Your task to perform on an android device: check the backup settings in the google photos Image 0: 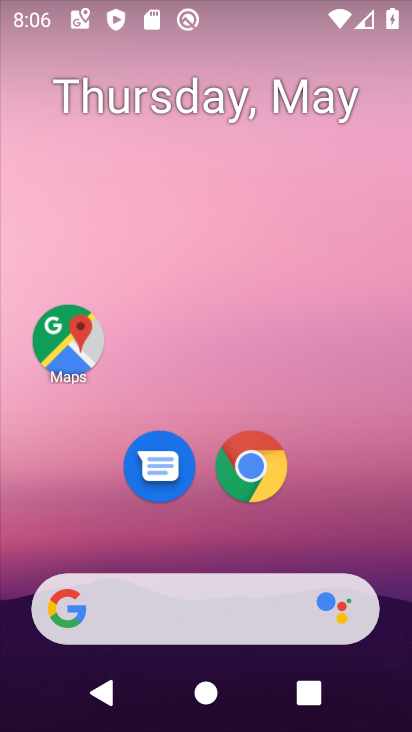
Step 0: drag from (362, 579) to (283, 23)
Your task to perform on an android device: check the backup settings in the google photos Image 1: 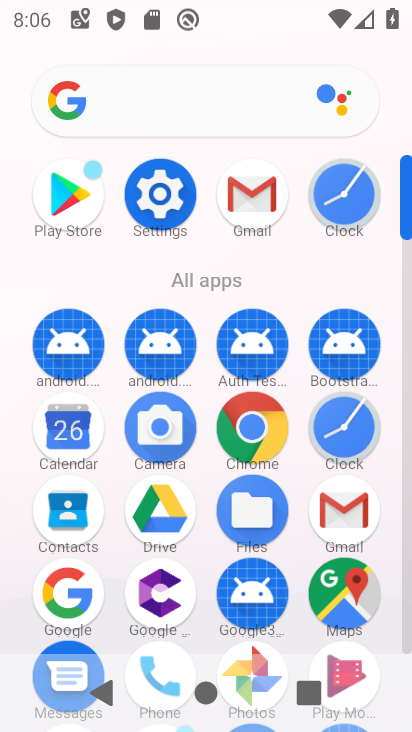
Step 1: click (408, 492)
Your task to perform on an android device: check the backup settings in the google photos Image 2: 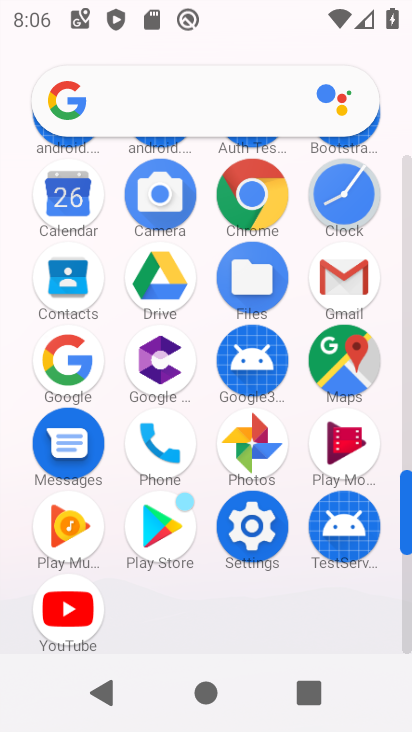
Step 2: click (254, 450)
Your task to perform on an android device: check the backup settings in the google photos Image 3: 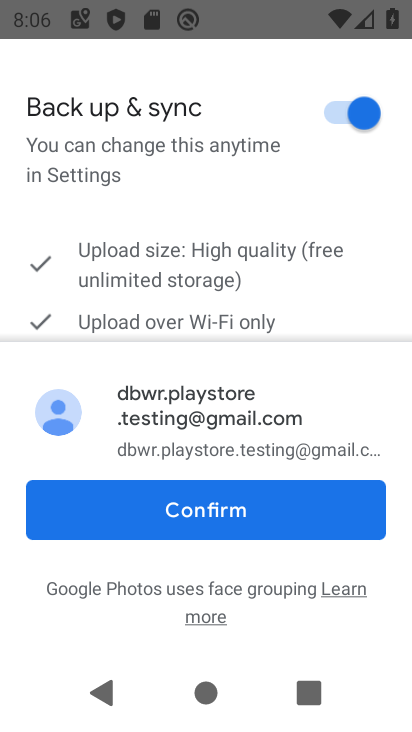
Step 3: click (227, 520)
Your task to perform on an android device: check the backup settings in the google photos Image 4: 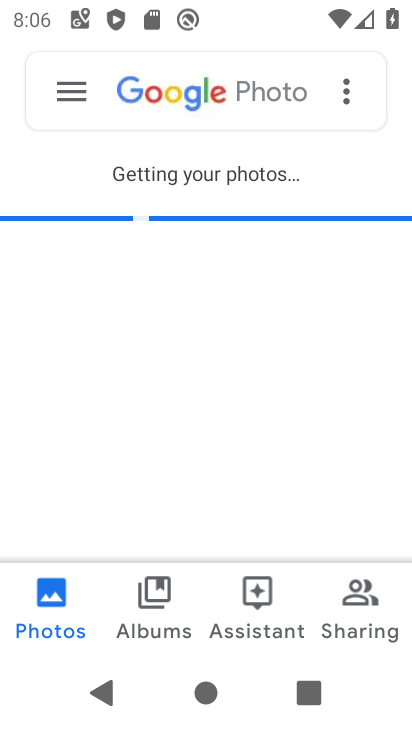
Step 4: click (52, 94)
Your task to perform on an android device: check the backup settings in the google photos Image 5: 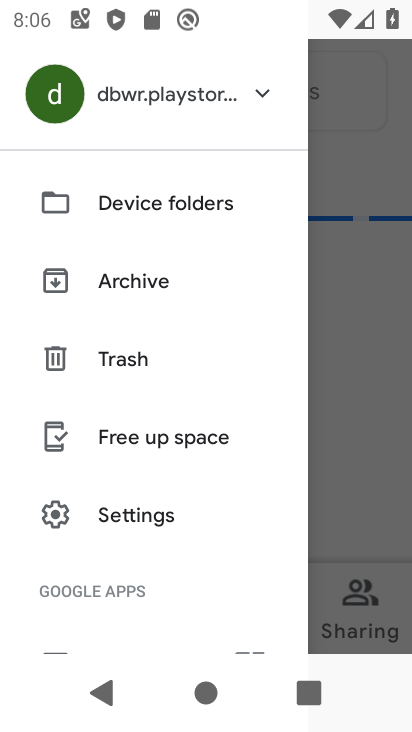
Step 5: click (152, 507)
Your task to perform on an android device: check the backup settings in the google photos Image 6: 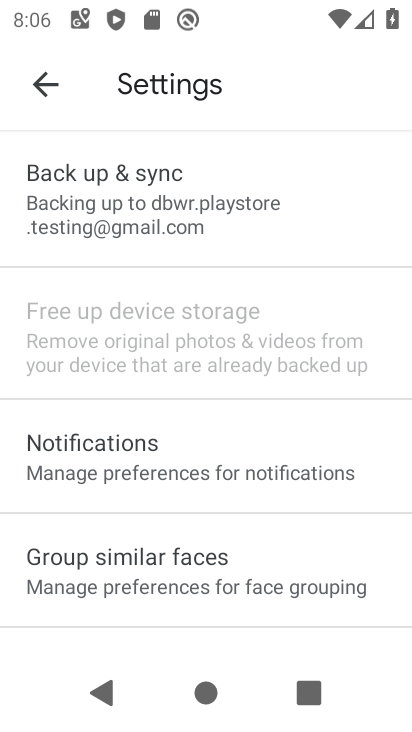
Step 6: click (102, 205)
Your task to perform on an android device: check the backup settings in the google photos Image 7: 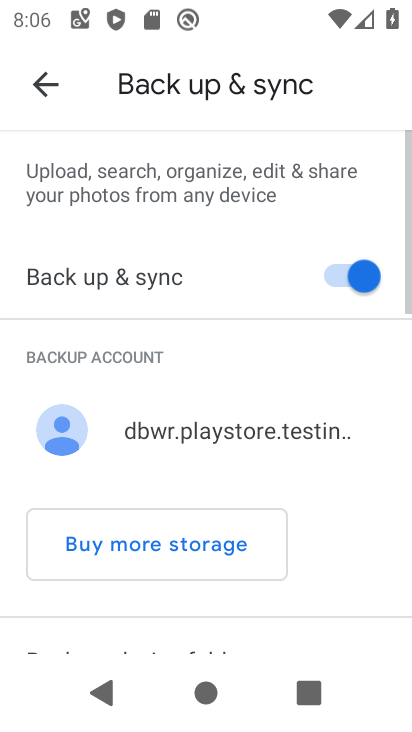
Step 7: task complete